Your task to perform on an android device: Show the shopping cart on newegg. Image 0: 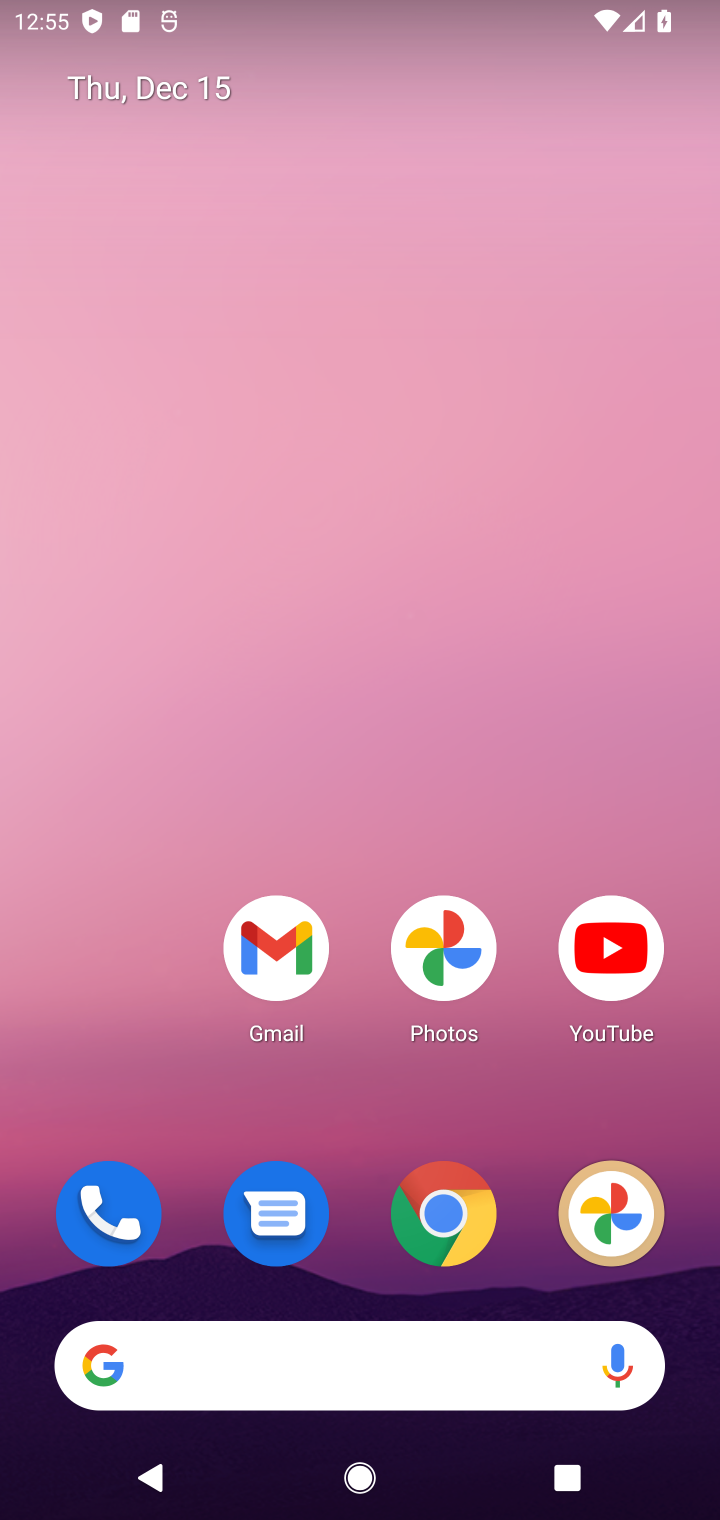
Step 0: click (467, 1222)
Your task to perform on an android device: Show the shopping cart on newegg. Image 1: 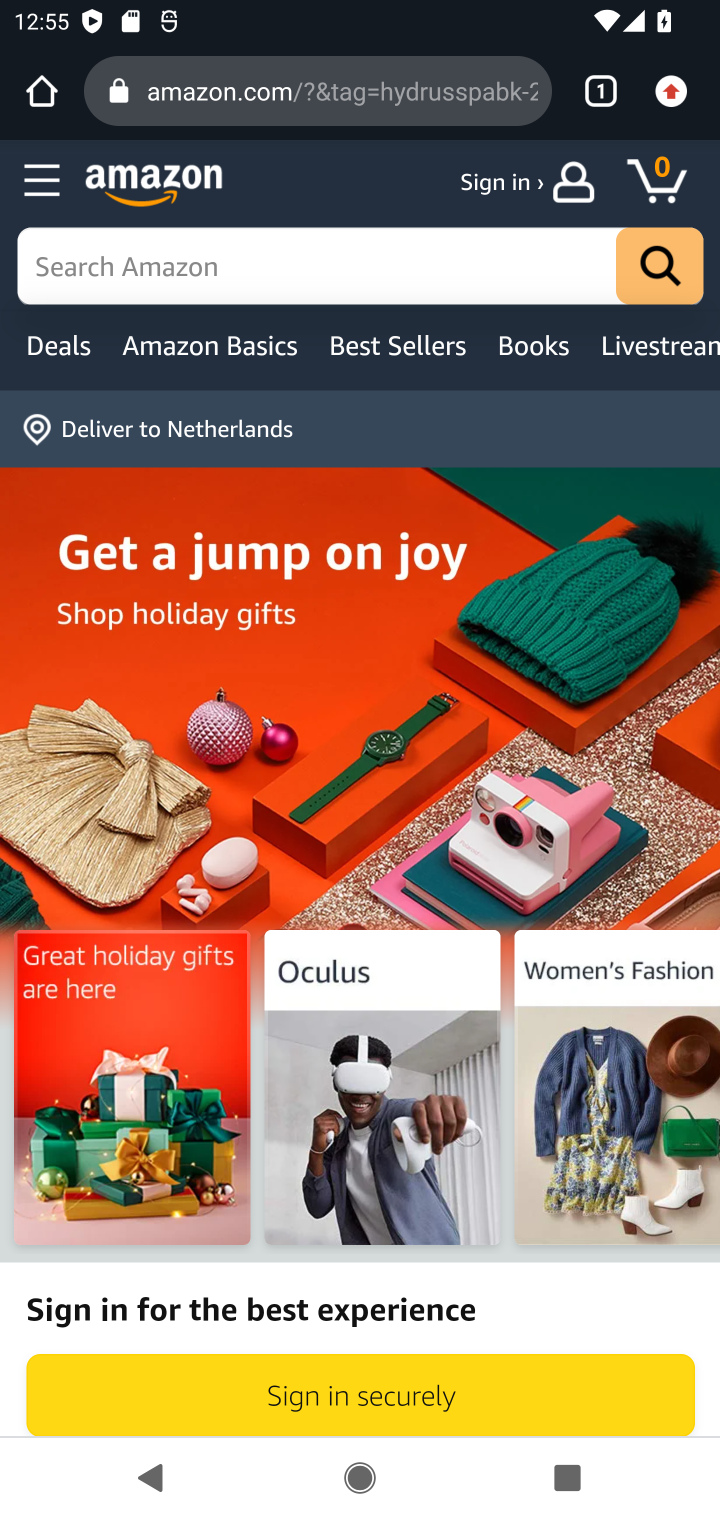
Step 1: click (224, 259)
Your task to perform on an android device: Show the shopping cart on newegg. Image 2: 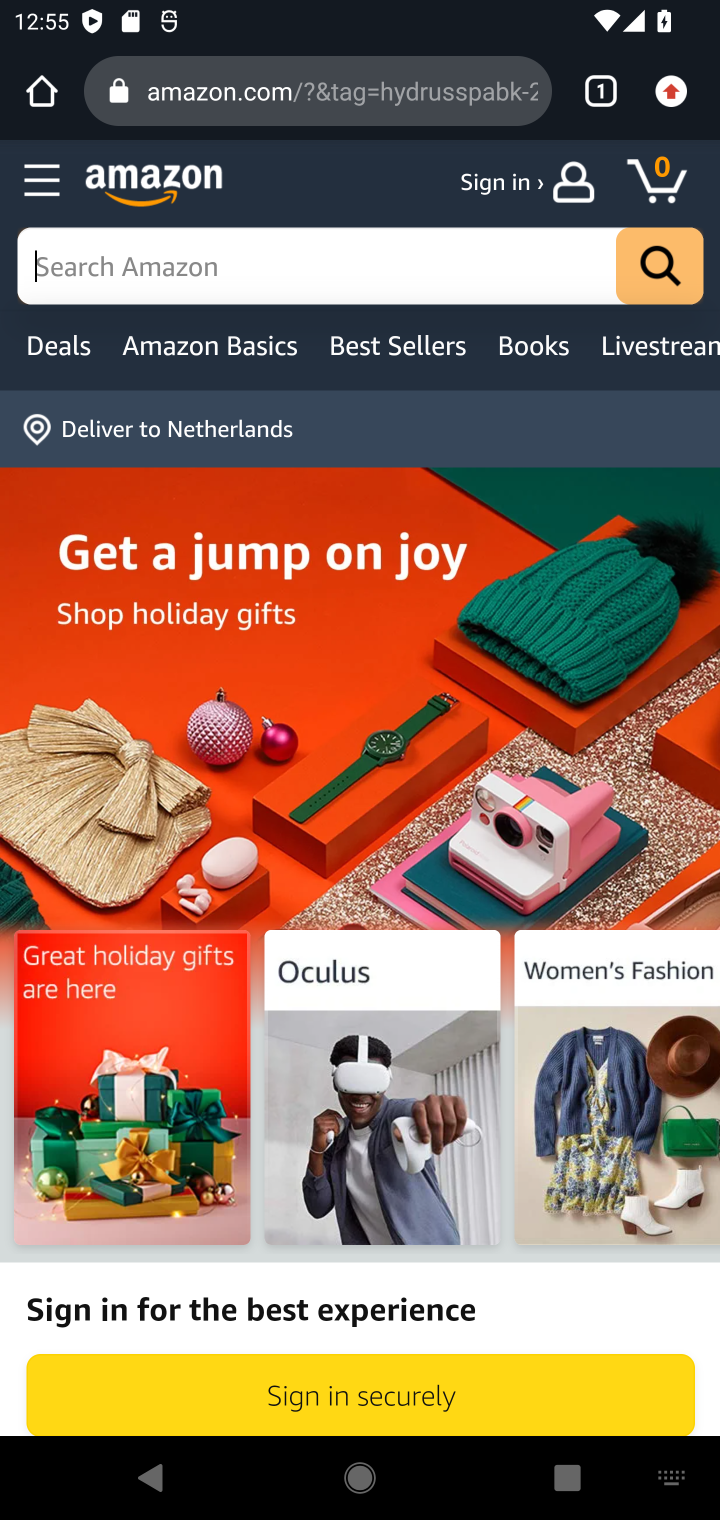
Step 2: click (397, 87)
Your task to perform on an android device: Show the shopping cart on newegg. Image 3: 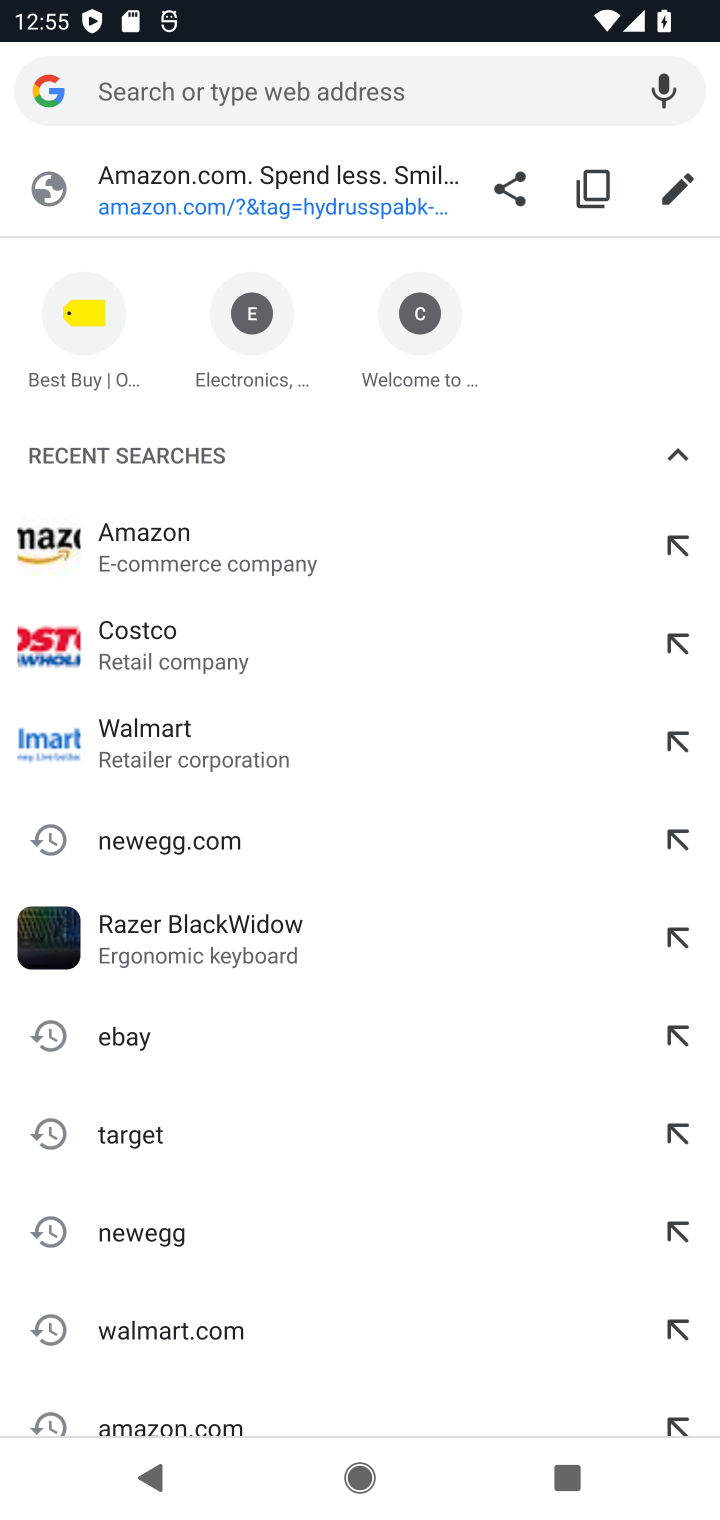
Step 3: click (223, 824)
Your task to perform on an android device: Show the shopping cart on newegg. Image 4: 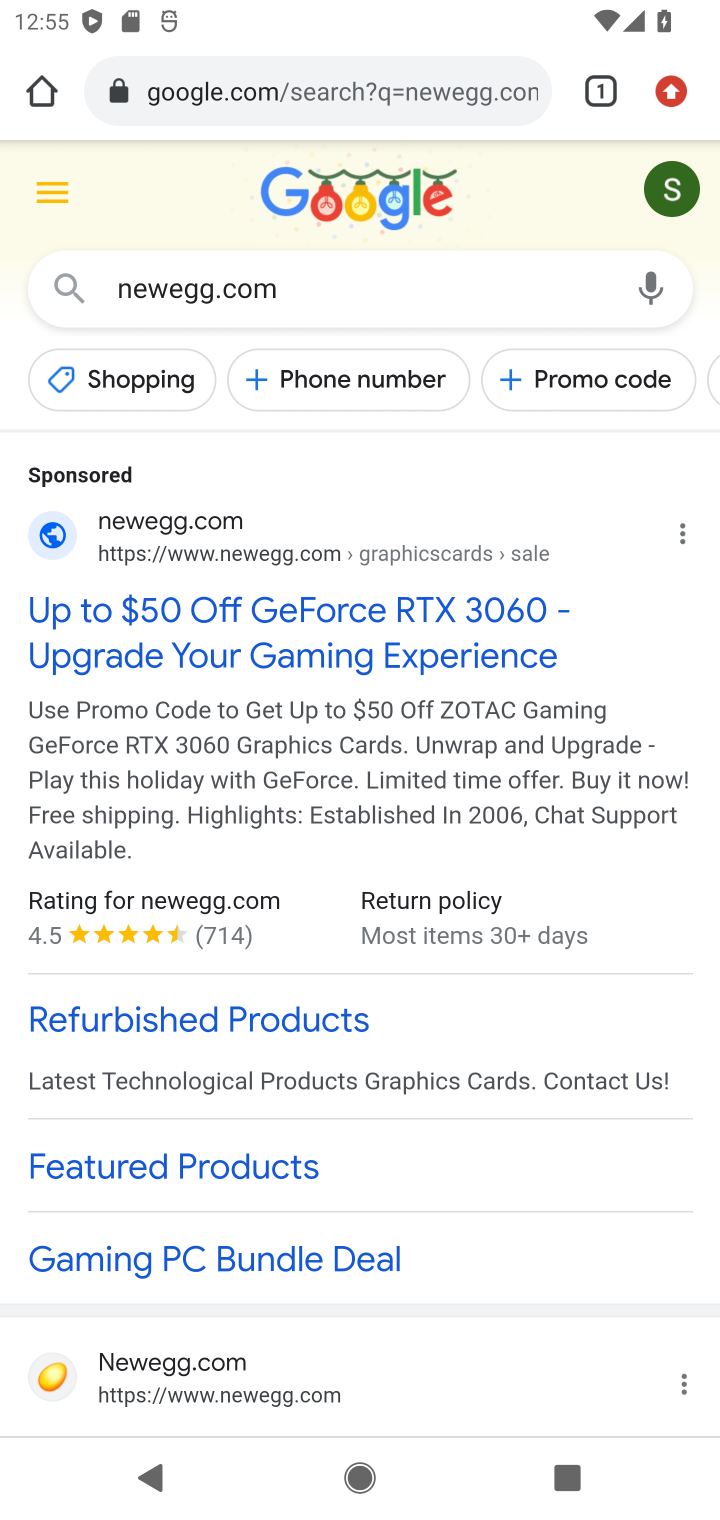
Step 4: click (283, 653)
Your task to perform on an android device: Show the shopping cart on newegg. Image 5: 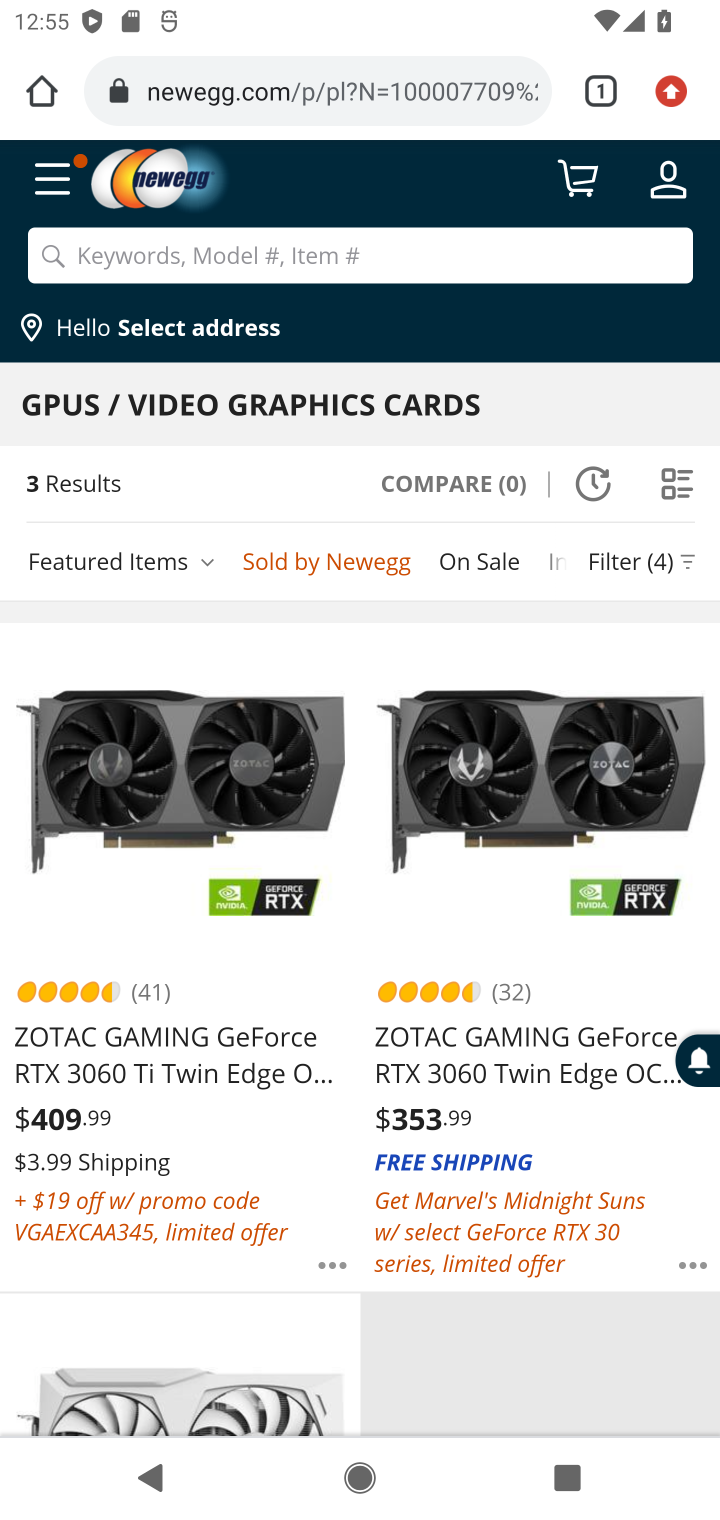
Step 5: click (316, 274)
Your task to perform on an android device: Show the shopping cart on newegg. Image 6: 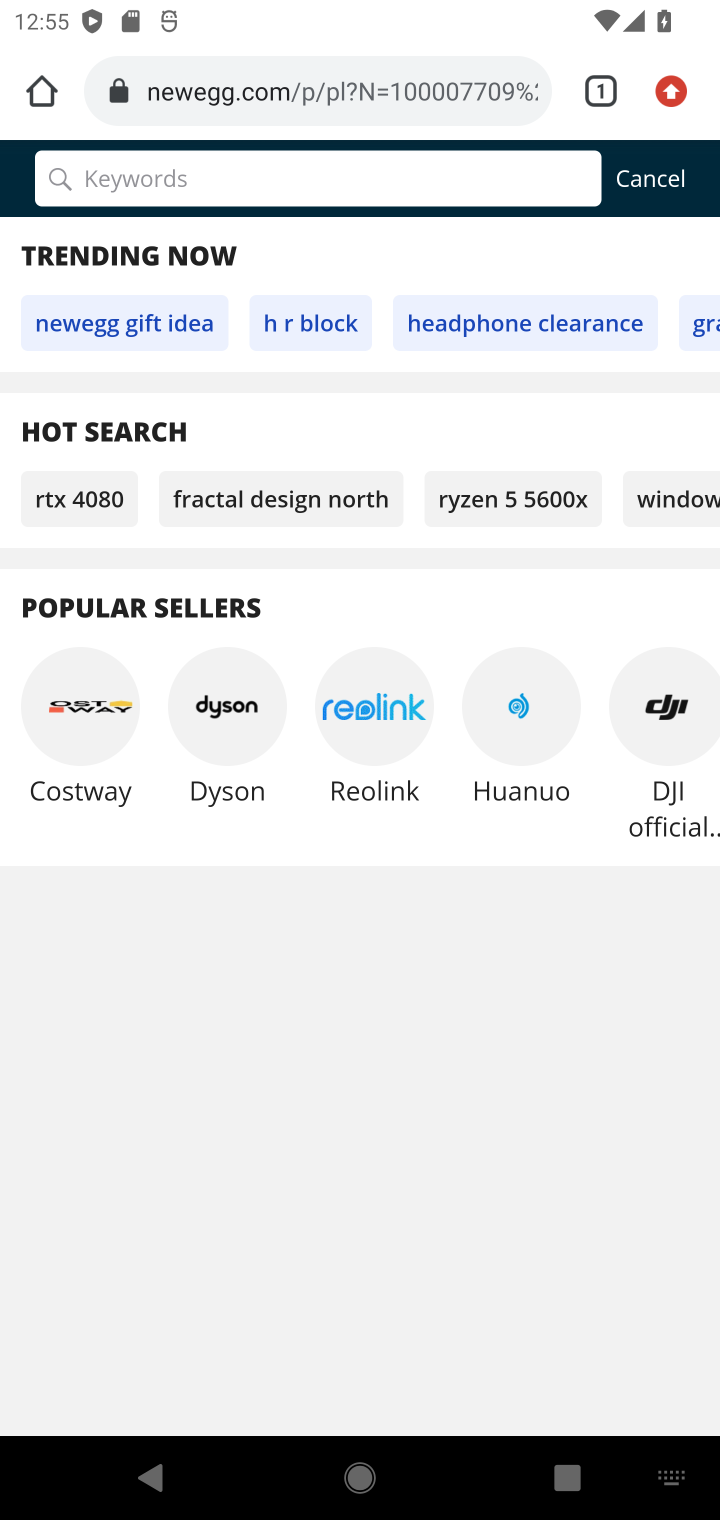
Step 6: click (661, 196)
Your task to perform on an android device: Show the shopping cart on newegg. Image 7: 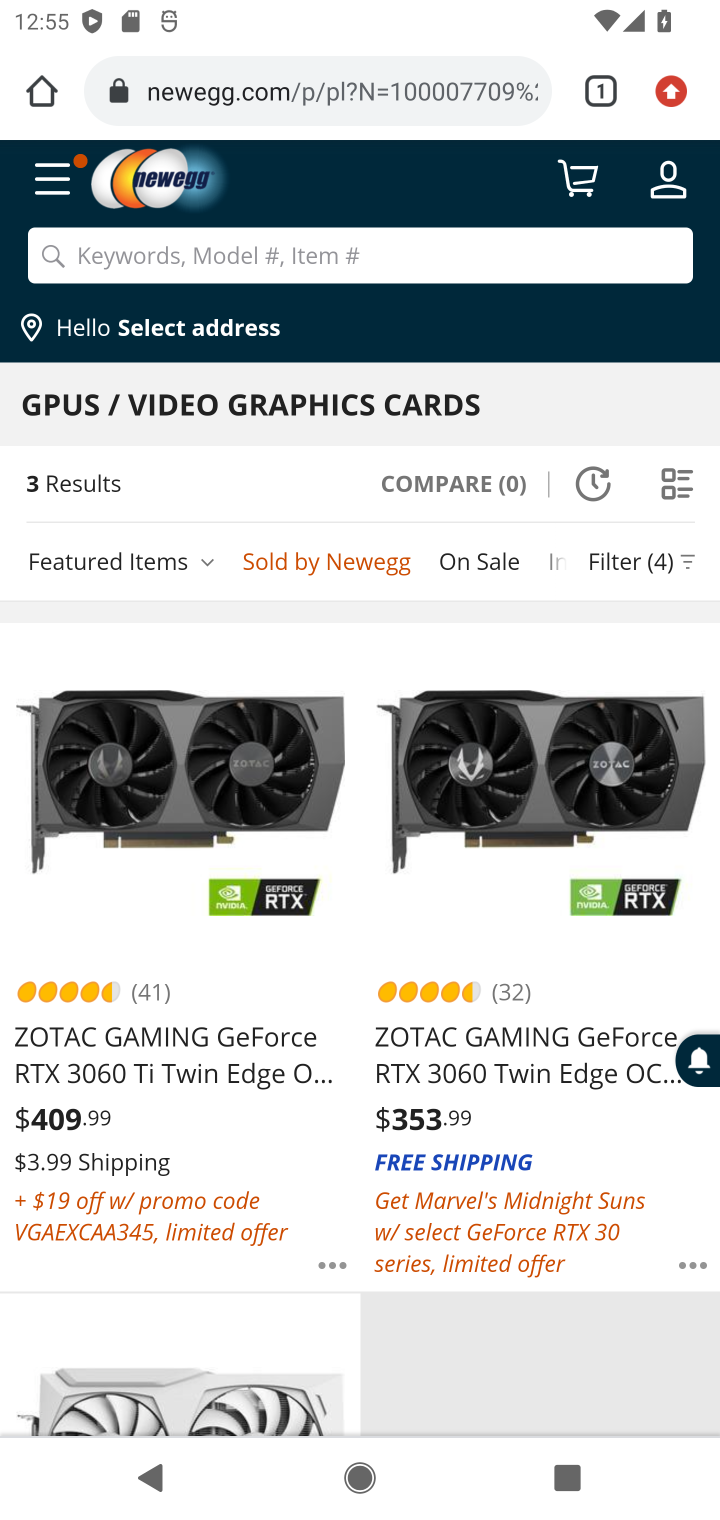
Step 7: click (674, 179)
Your task to perform on an android device: Show the shopping cart on newegg. Image 8: 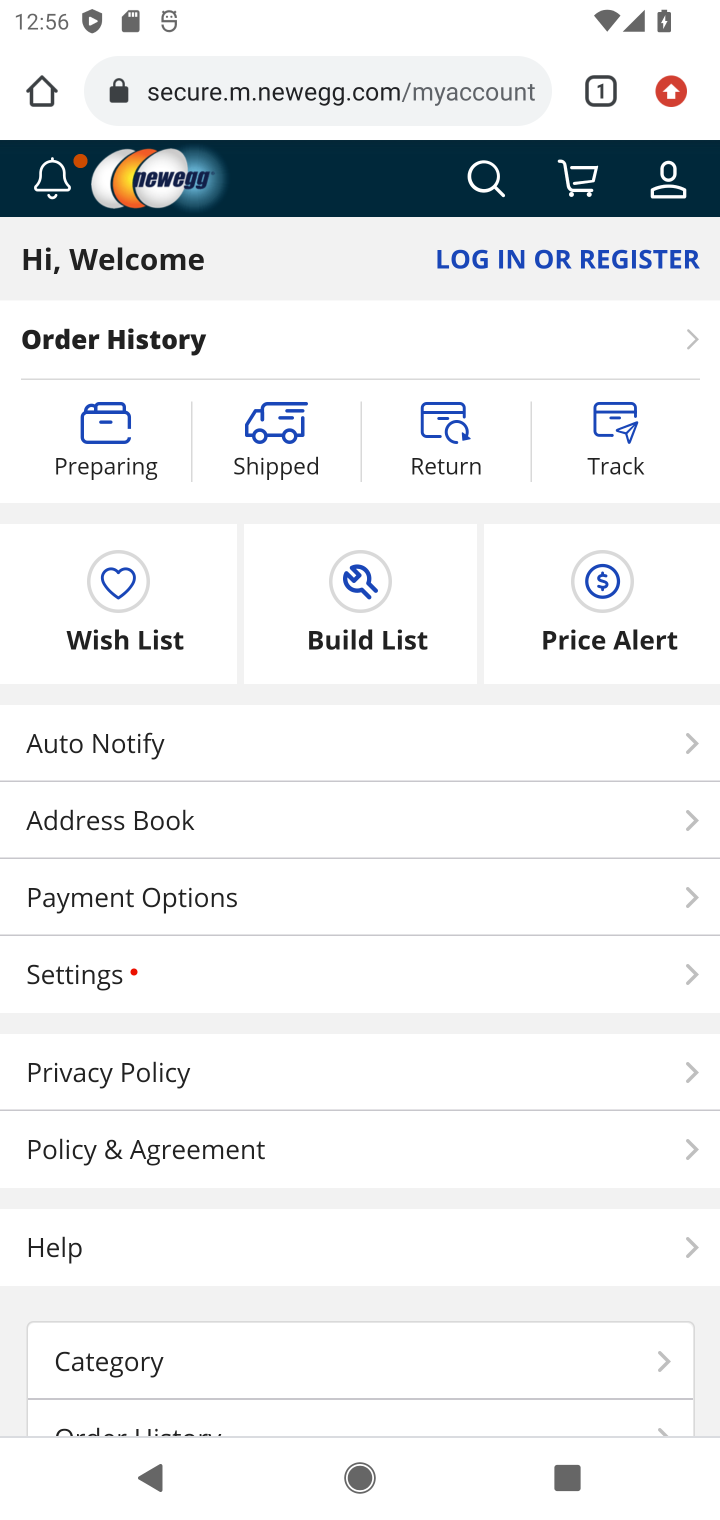
Step 8: task complete